Your task to perform on an android device: open wifi settings Image 0: 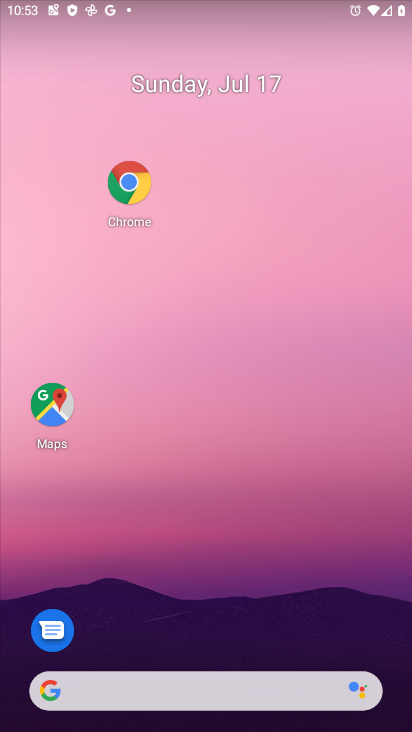
Step 0: drag from (178, 387) to (178, 90)
Your task to perform on an android device: open wifi settings Image 1: 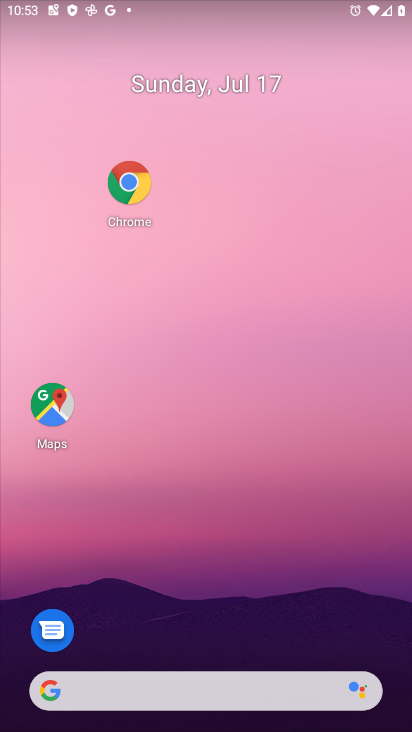
Step 1: drag from (185, 593) to (175, 50)
Your task to perform on an android device: open wifi settings Image 2: 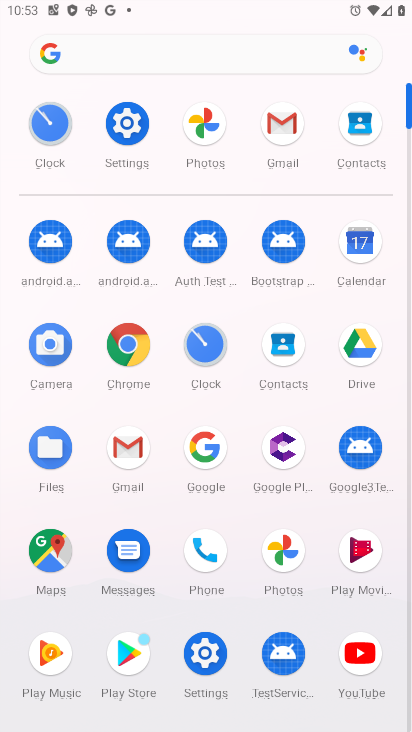
Step 2: click (128, 128)
Your task to perform on an android device: open wifi settings Image 3: 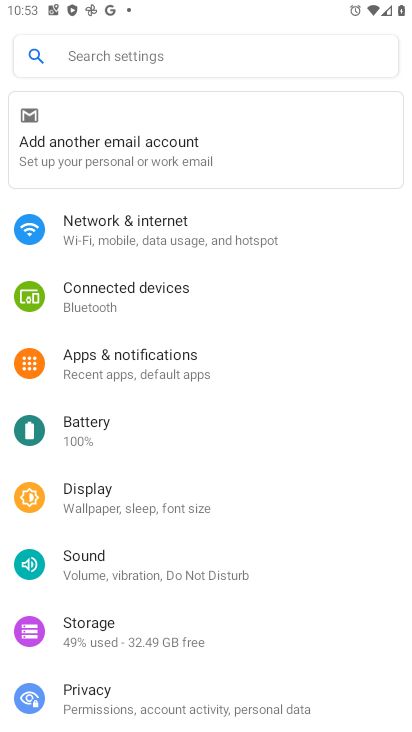
Step 3: click (132, 230)
Your task to perform on an android device: open wifi settings Image 4: 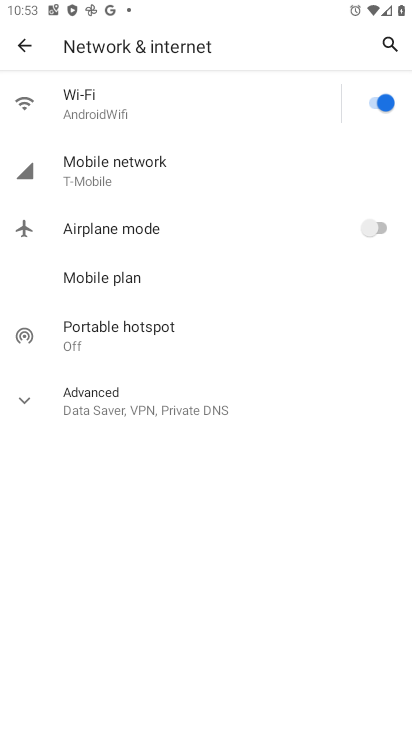
Step 4: click (103, 93)
Your task to perform on an android device: open wifi settings Image 5: 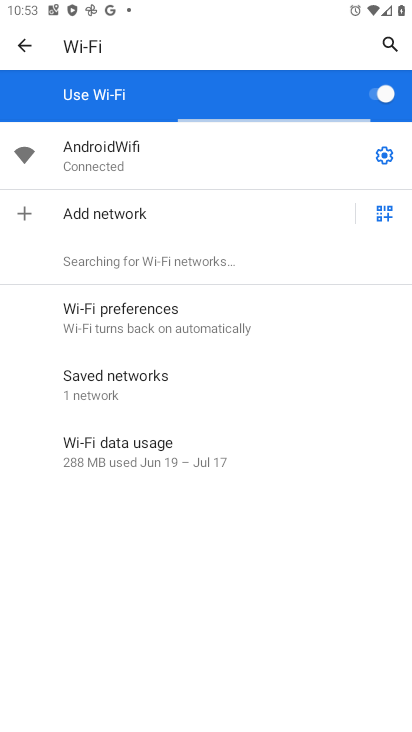
Step 5: task complete